Your task to perform on an android device: turn off notifications settings in the gmail app Image 0: 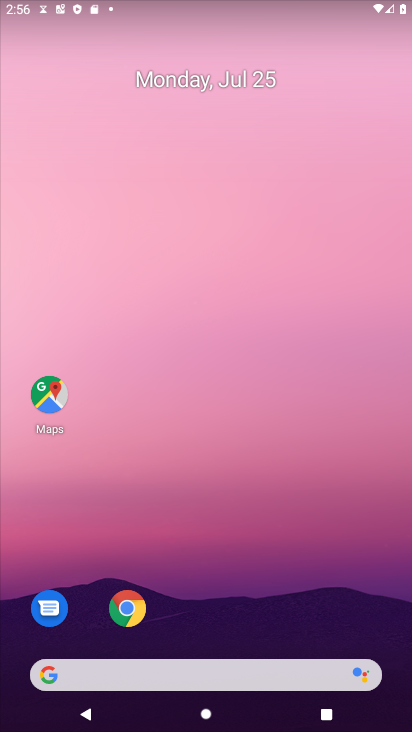
Step 0: drag from (184, 536) to (241, 6)
Your task to perform on an android device: turn off notifications settings in the gmail app Image 1: 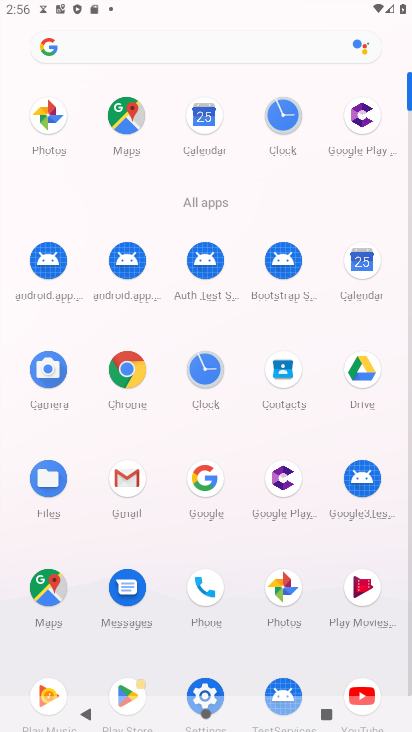
Step 1: click (124, 496)
Your task to perform on an android device: turn off notifications settings in the gmail app Image 2: 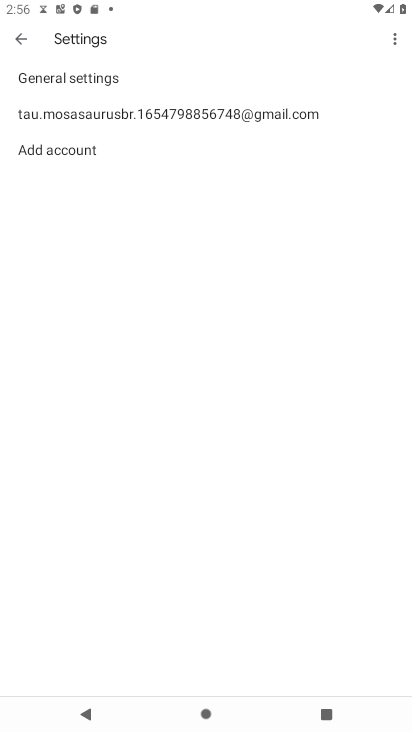
Step 2: click (93, 77)
Your task to perform on an android device: turn off notifications settings in the gmail app Image 3: 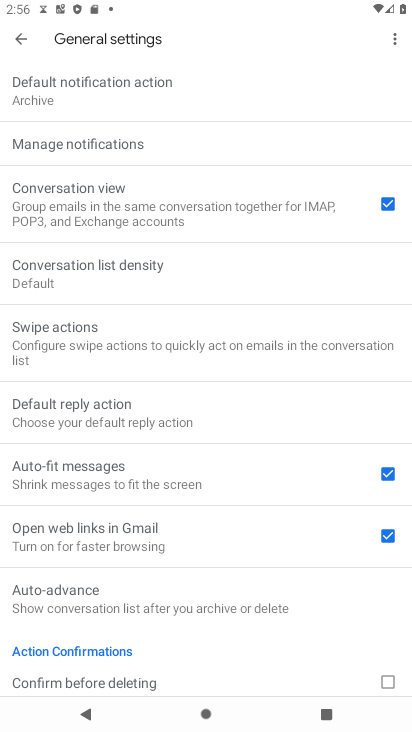
Step 3: click (89, 141)
Your task to perform on an android device: turn off notifications settings in the gmail app Image 4: 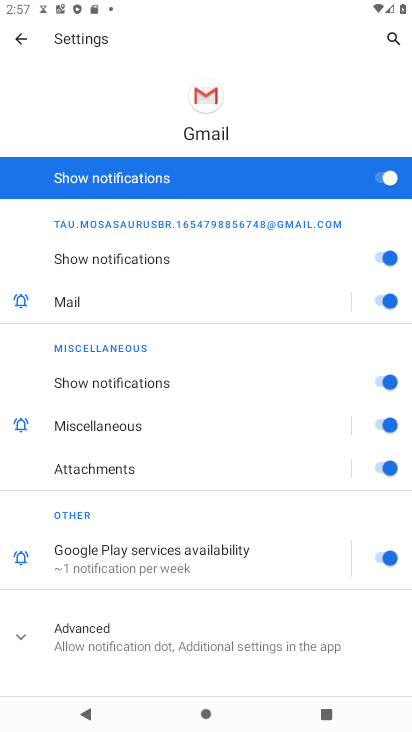
Step 4: click (371, 177)
Your task to perform on an android device: turn off notifications settings in the gmail app Image 5: 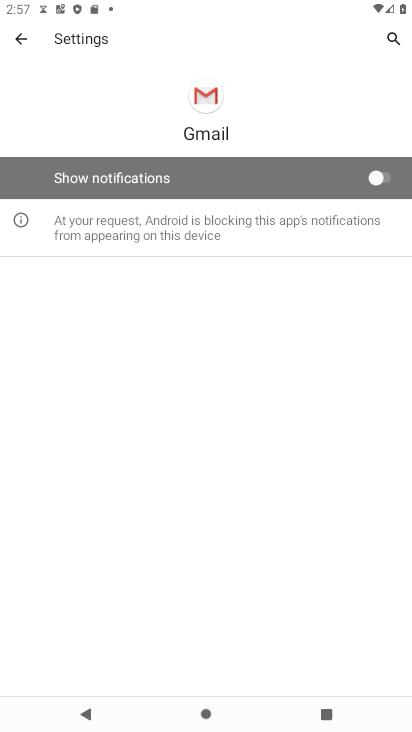
Step 5: task complete